Your task to perform on an android device: turn off sleep mode Image 0: 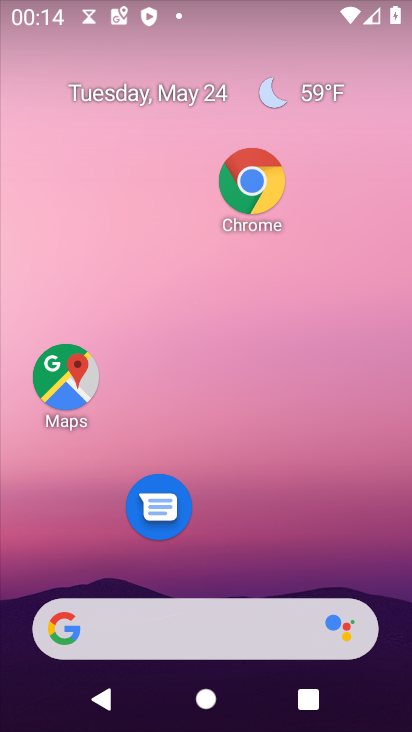
Step 0: drag from (346, 546) to (345, 247)
Your task to perform on an android device: turn off sleep mode Image 1: 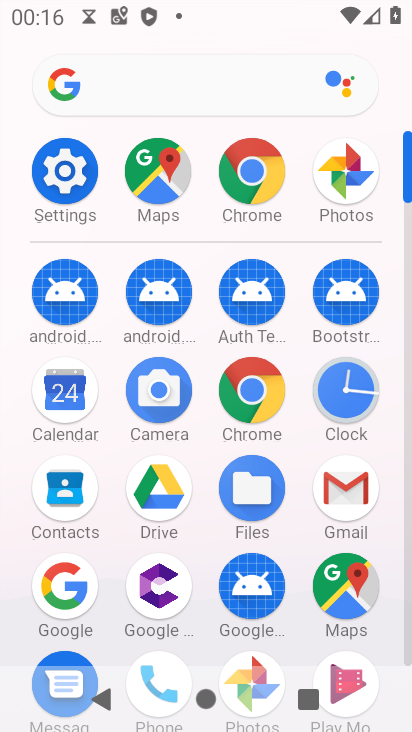
Step 1: task complete